Your task to perform on an android device: turn on sleep mode Image 0: 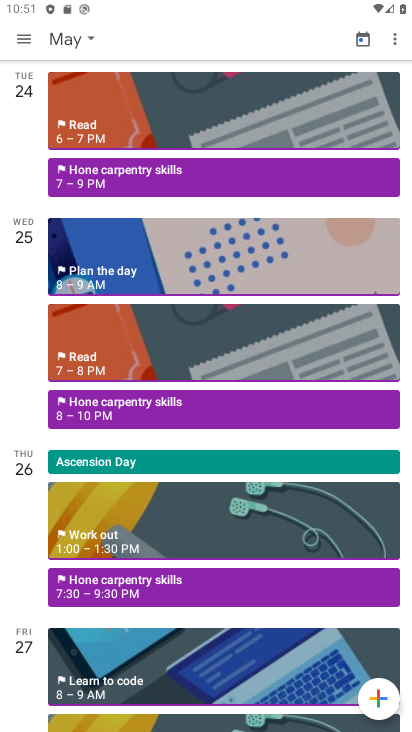
Step 0: press home button
Your task to perform on an android device: turn on sleep mode Image 1: 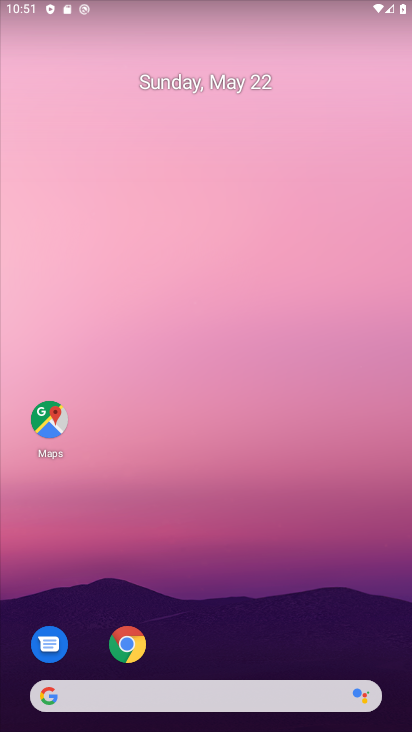
Step 1: drag from (369, 558) to (319, 152)
Your task to perform on an android device: turn on sleep mode Image 2: 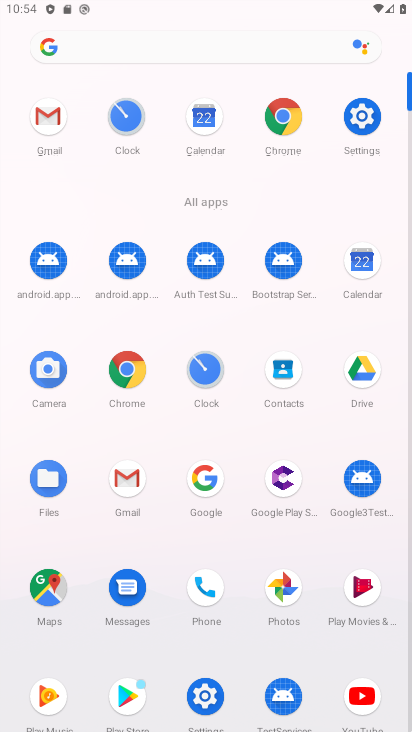
Step 2: click (362, 117)
Your task to perform on an android device: turn on sleep mode Image 3: 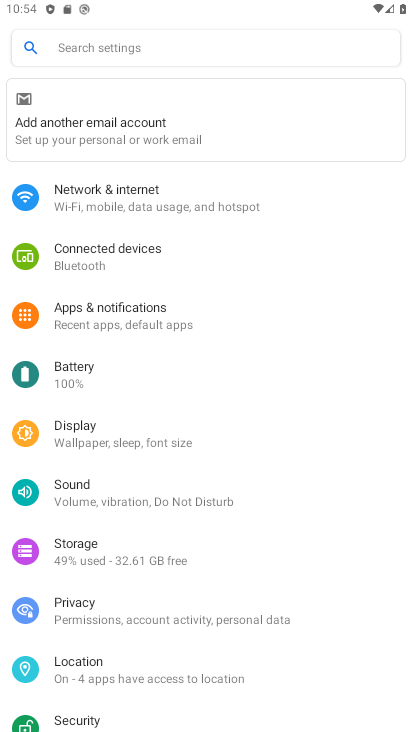
Step 3: task complete